Your task to perform on an android device: delete location history Image 0: 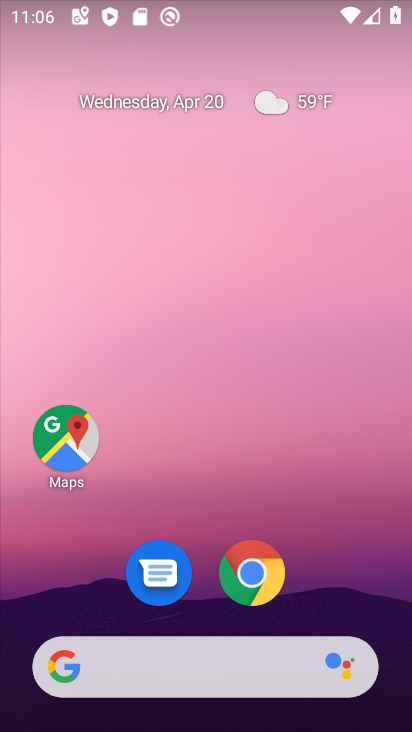
Step 0: click (66, 444)
Your task to perform on an android device: delete location history Image 1: 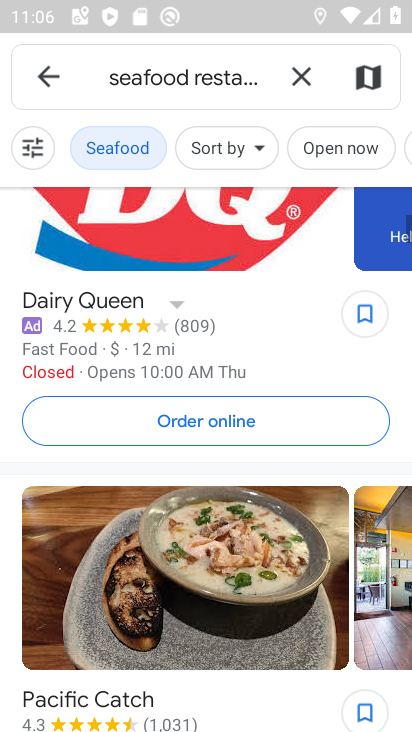
Step 1: click (303, 82)
Your task to perform on an android device: delete location history Image 2: 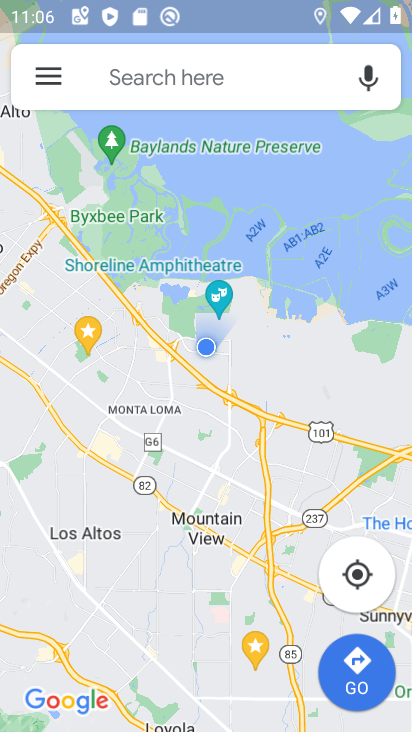
Step 2: click (57, 80)
Your task to perform on an android device: delete location history Image 3: 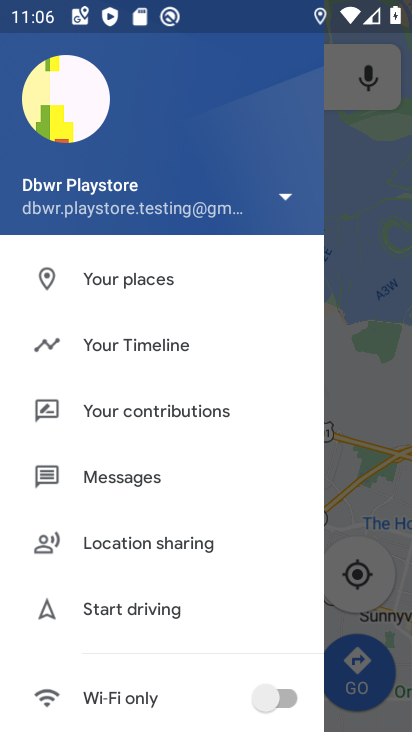
Step 3: click (128, 357)
Your task to perform on an android device: delete location history Image 4: 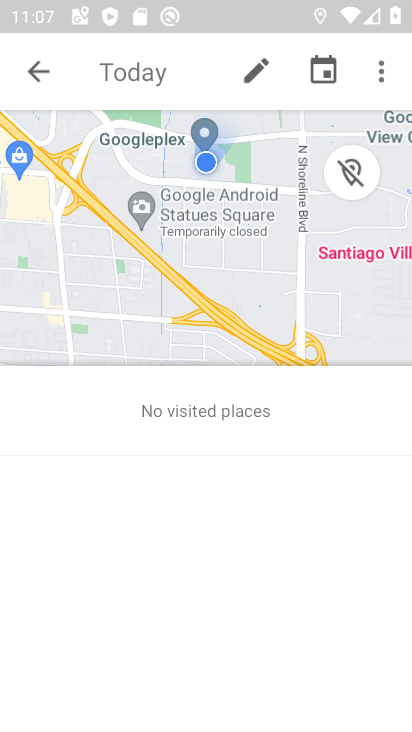
Step 4: click (382, 74)
Your task to perform on an android device: delete location history Image 5: 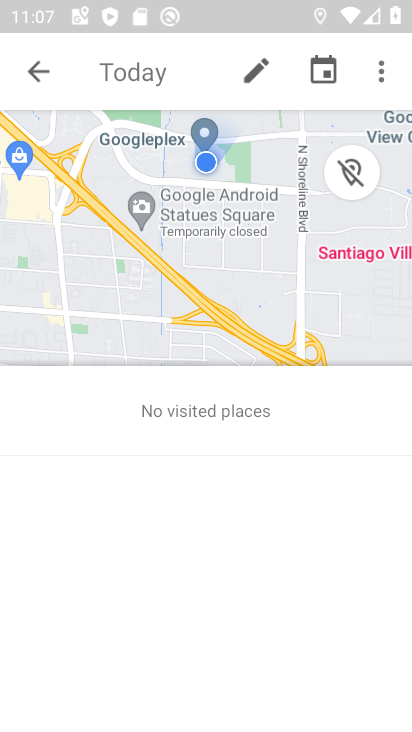
Step 5: click (379, 72)
Your task to perform on an android device: delete location history Image 6: 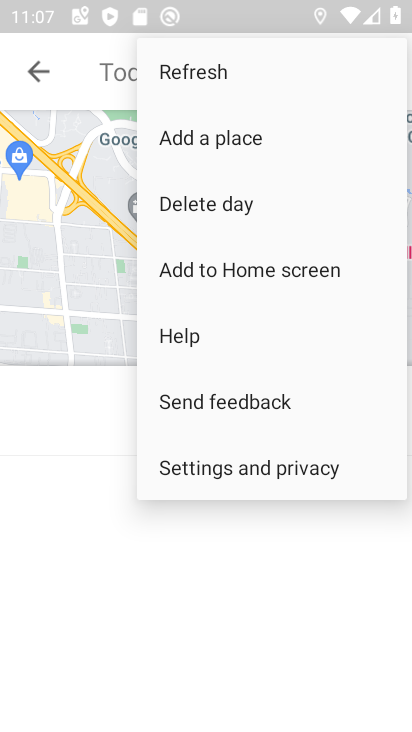
Step 6: click (227, 458)
Your task to perform on an android device: delete location history Image 7: 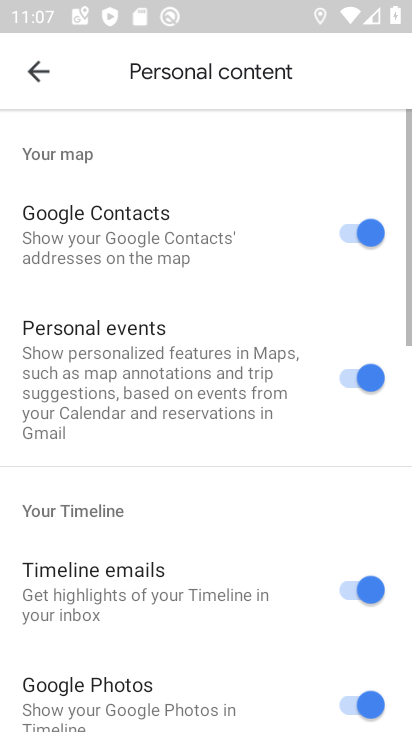
Step 7: drag from (207, 551) to (195, 81)
Your task to perform on an android device: delete location history Image 8: 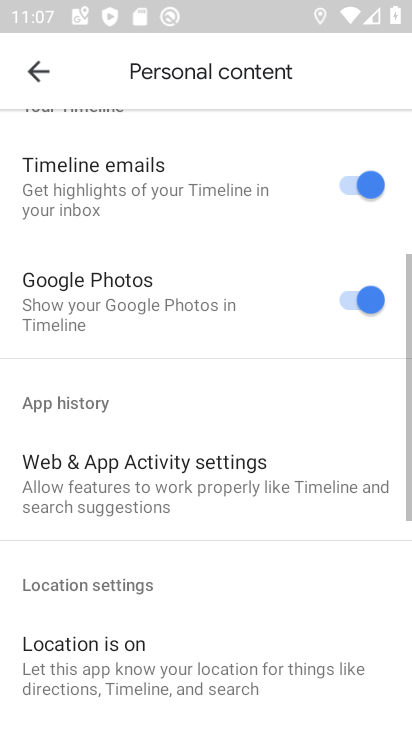
Step 8: drag from (244, 559) to (193, 88)
Your task to perform on an android device: delete location history Image 9: 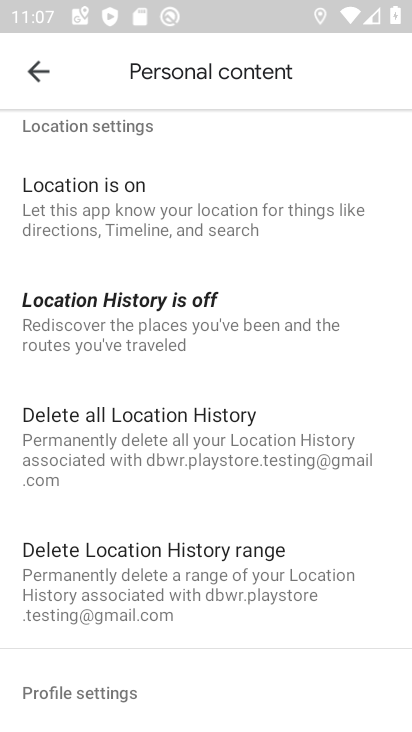
Step 9: click (140, 427)
Your task to perform on an android device: delete location history Image 10: 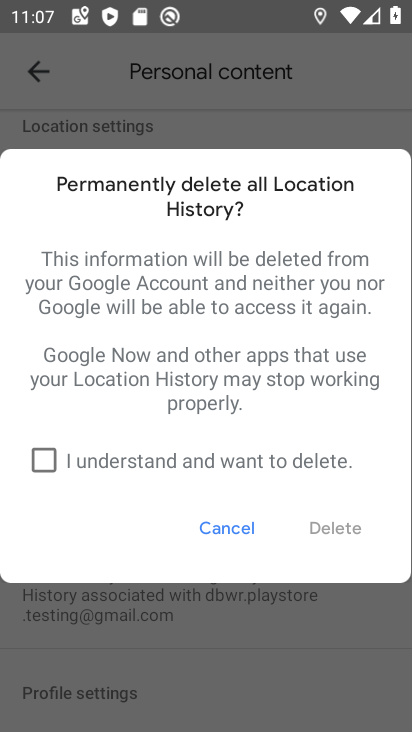
Step 10: click (39, 450)
Your task to perform on an android device: delete location history Image 11: 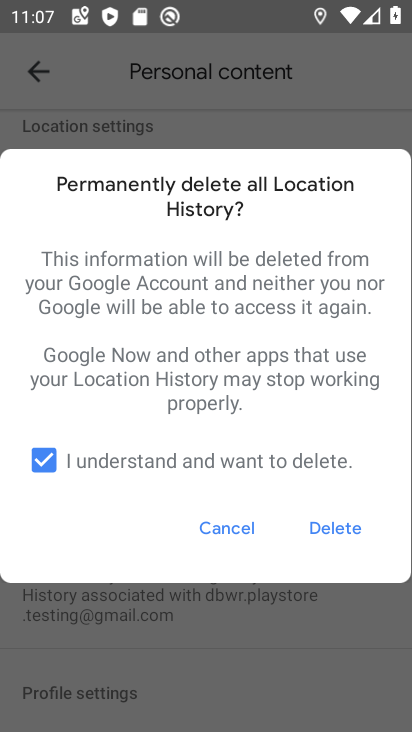
Step 11: click (352, 534)
Your task to perform on an android device: delete location history Image 12: 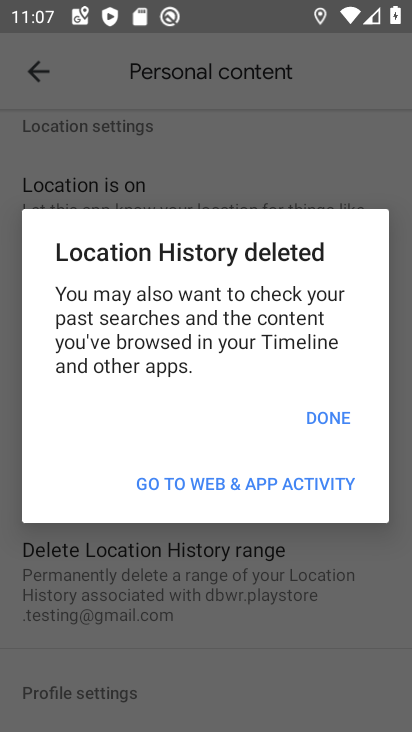
Step 12: click (341, 415)
Your task to perform on an android device: delete location history Image 13: 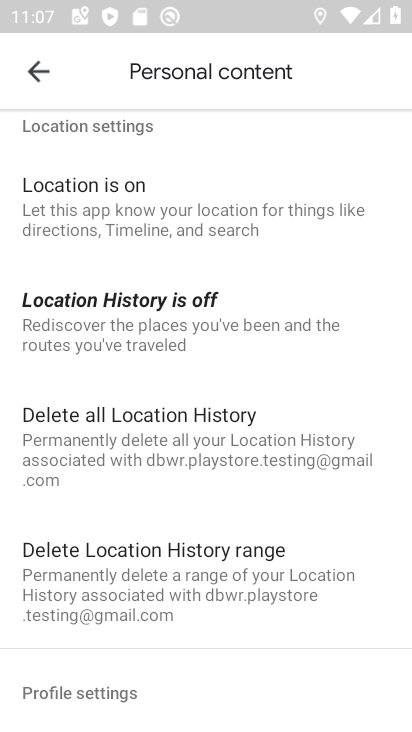
Step 13: task complete